Your task to perform on an android device: Go to Google maps Image 0: 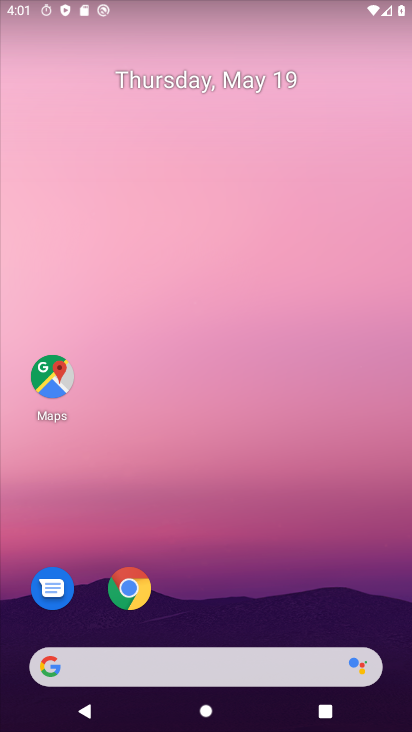
Step 0: click (43, 379)
Your task to perform on an android device: Go to Google maps Image 1: 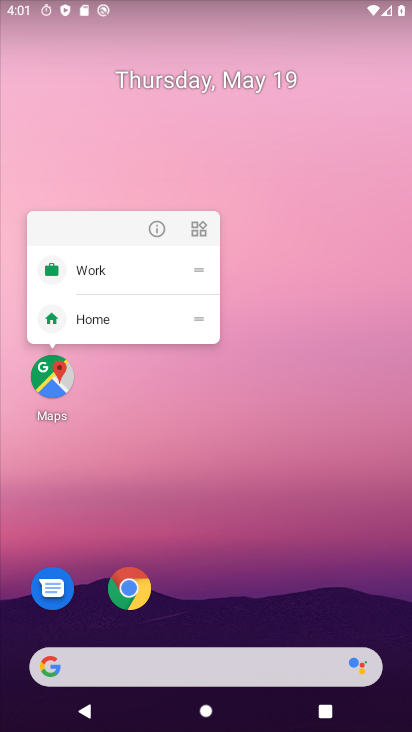
Step 1: click (43, 381)
Your task to perform on an android device: Go to Google maps Image 2: 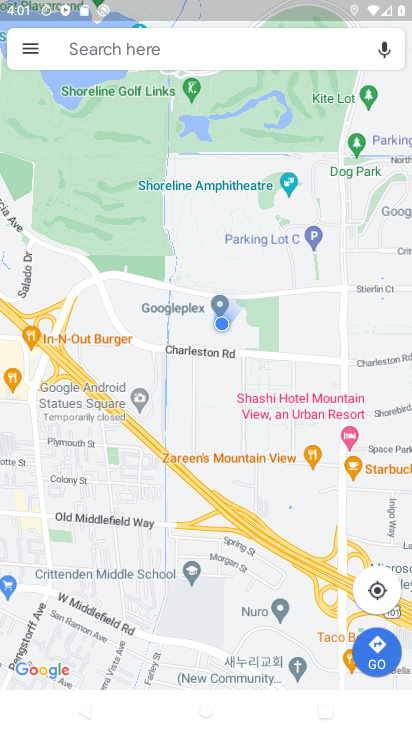
Step 2: task complete